Your task to perform on an android device: toggle pop-ups in chrome Image 0: 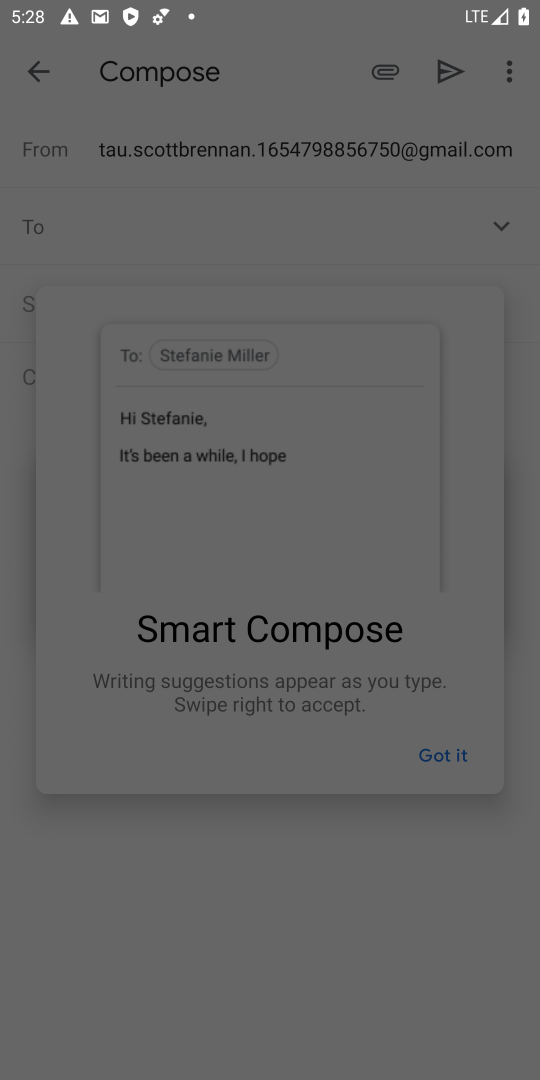
Step 0: press back button
Your task to perform on an android device: toggle pop-ups in chrome Image 1: 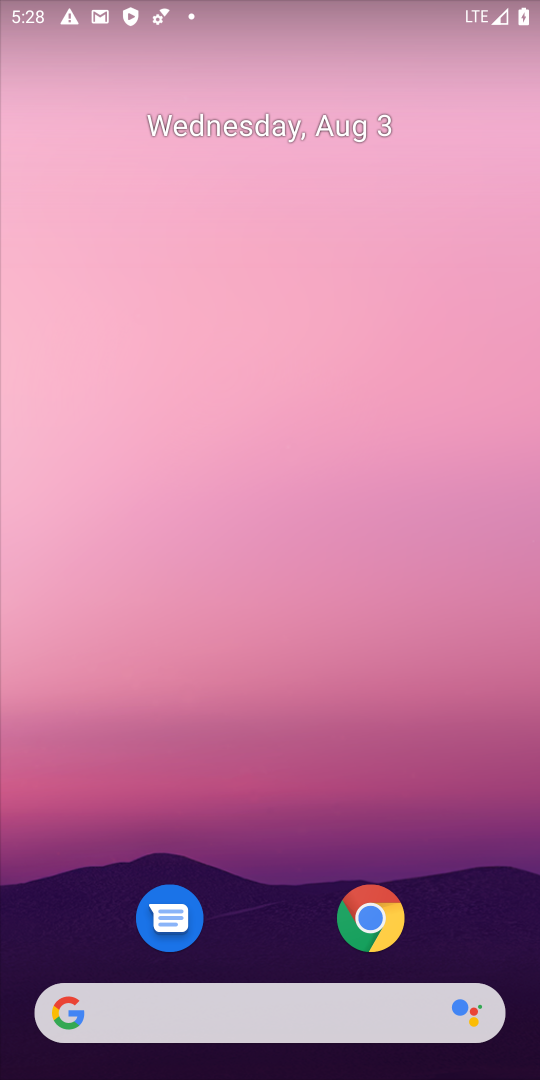
Step 1: press back button
Your task to perform on an android device: toggle pop-ups in chrome Image 2: 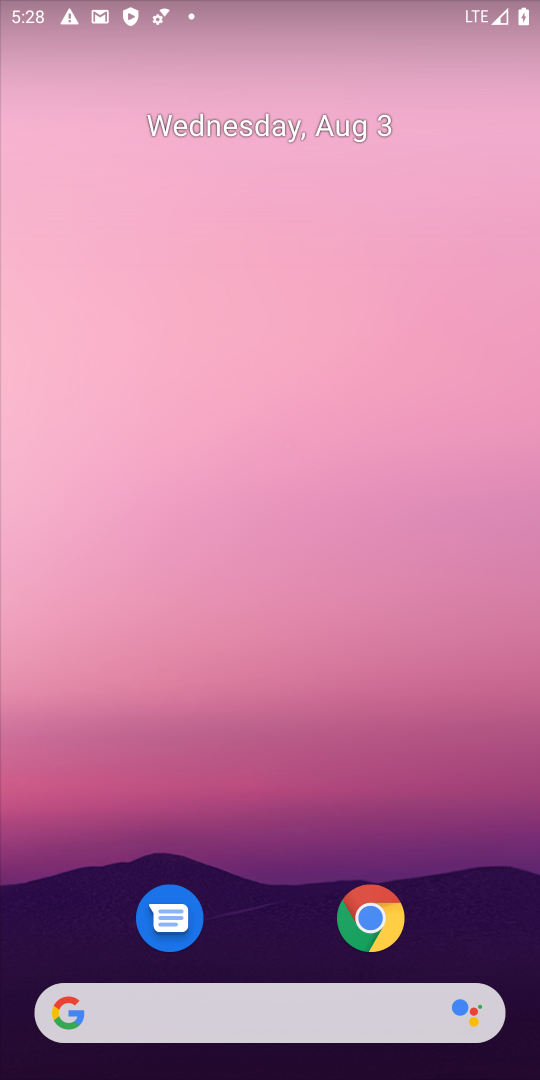
Step 2: click (353, 917)
Your task to perform on an android device: toggle pop-ups in chrome Image 3: 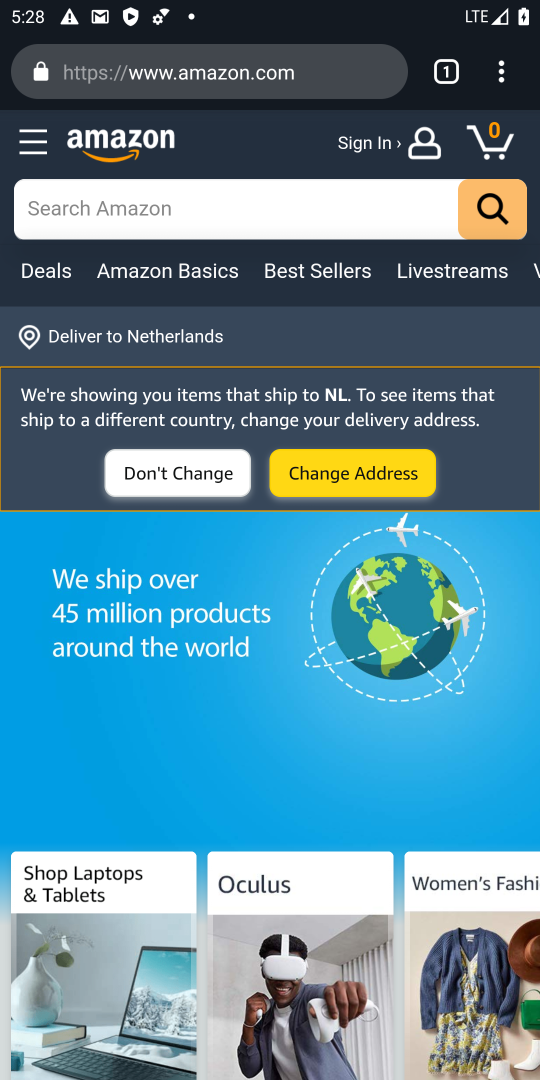
Step 3: drag from (498, 65) to (267, 944)
Your task to perform on an android device: toggle pop-ups in chrome Image 4: 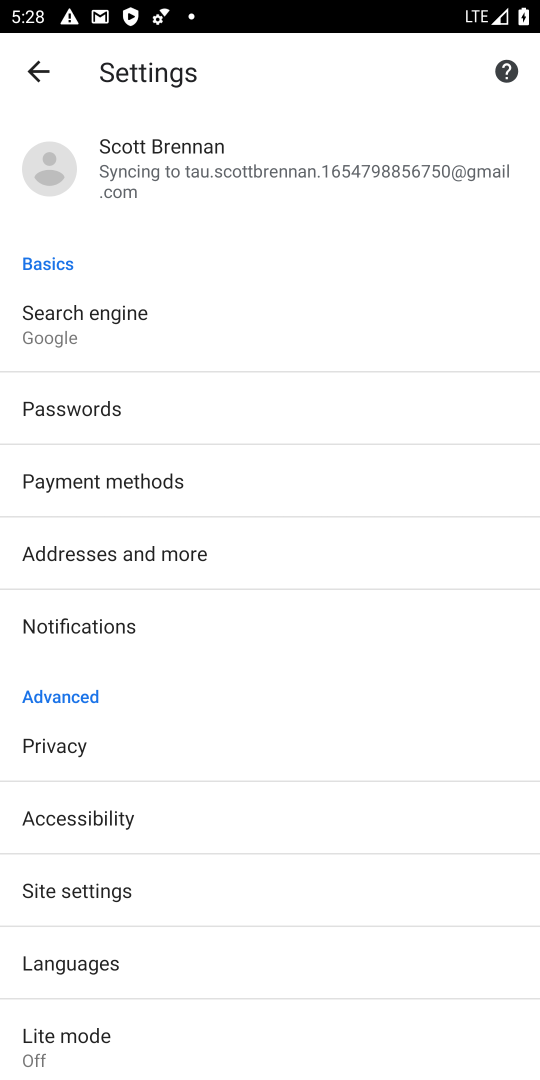
Step 4: click (111, 887)
Your task to perform on an android device: toggle pop-ups in chrome Image 5: 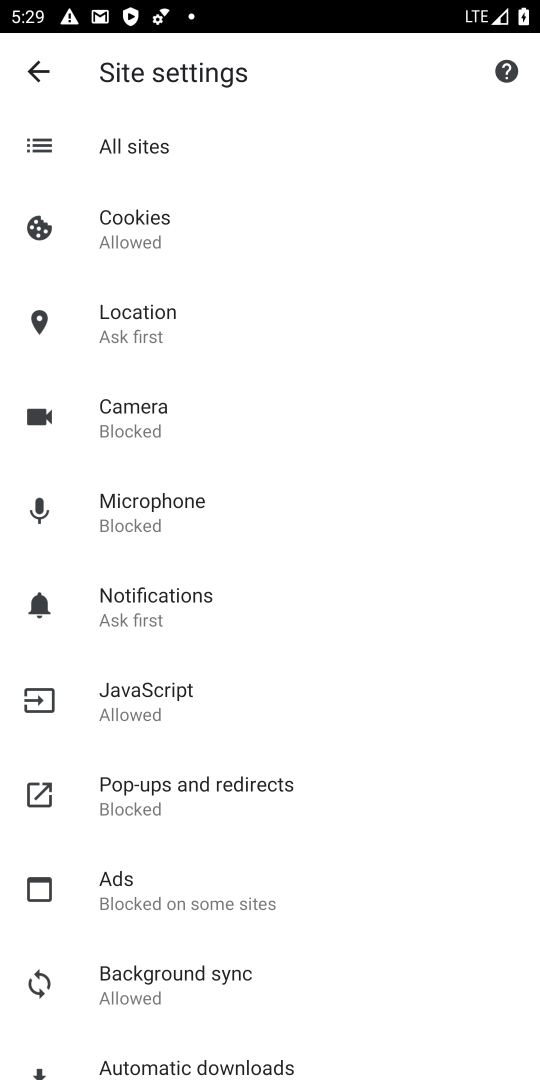
Step 5: click (142, 806)
Your task to perform on an android device: toggle pop-ups in chrome Image 6: 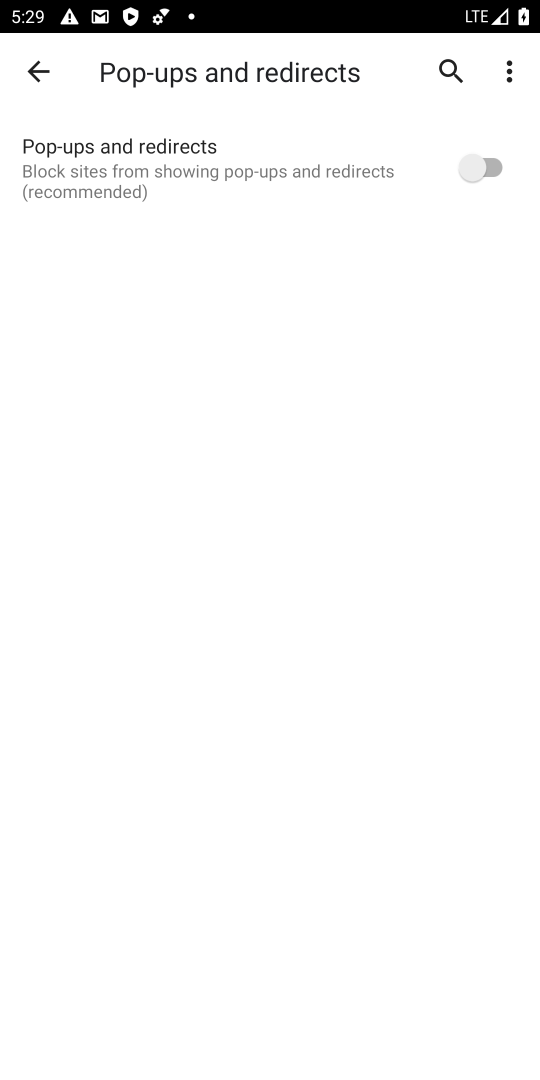
Step 6: click (478, 170)
Your task to perform on an android device: toggle pop-ups in chrome Image 7: 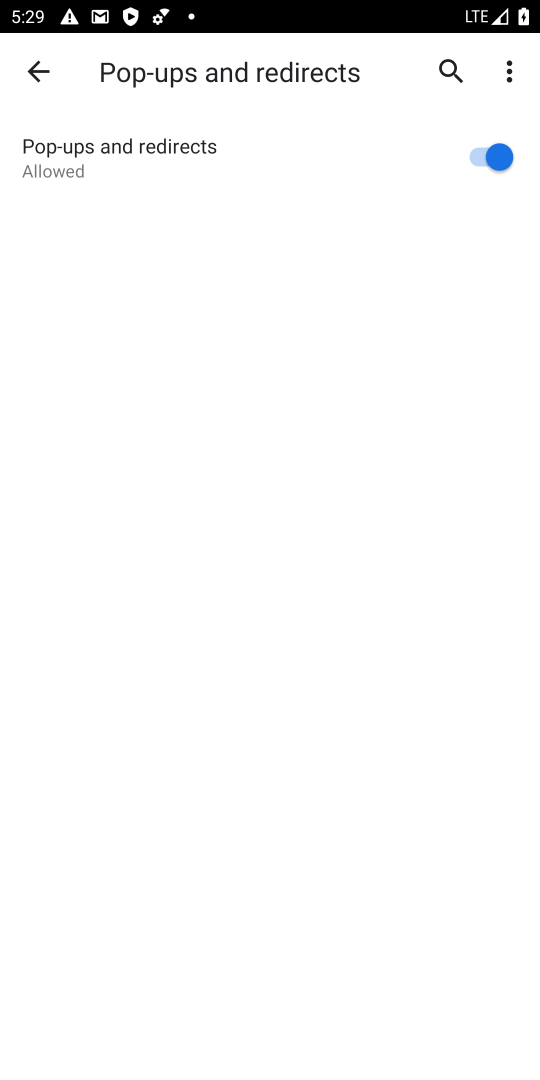
Step 7: task complete